Your task to perform on an android device: set the timer Image 0: 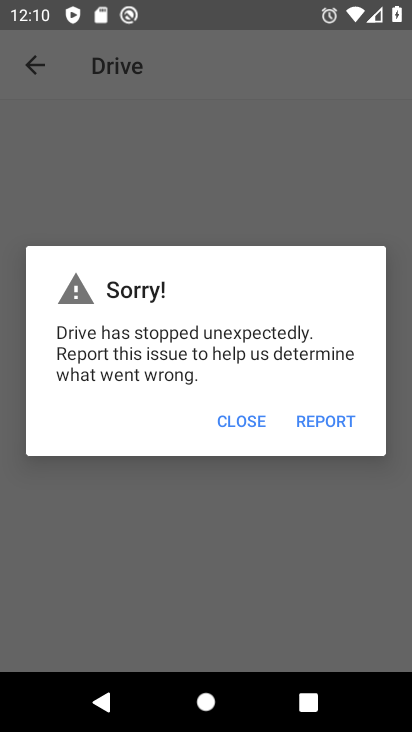
Step 0: press home button
Your task to perform on an android device: set the timer Image 1: 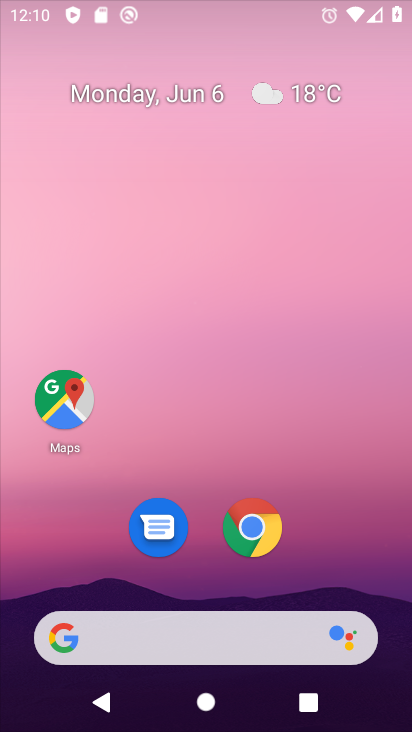
Step 1: drag from (133, 28) to (14, 387)
Your task to perform on an android device: set the timer Image 2: 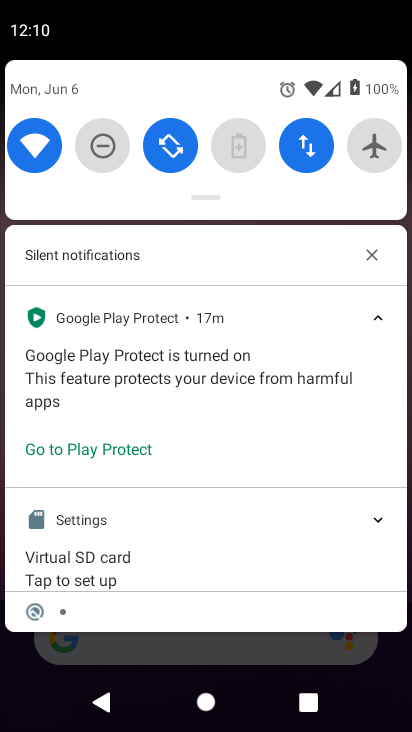
Step 2: click (195, 675)
Your task to perform on an android device: set the timer Image 3: 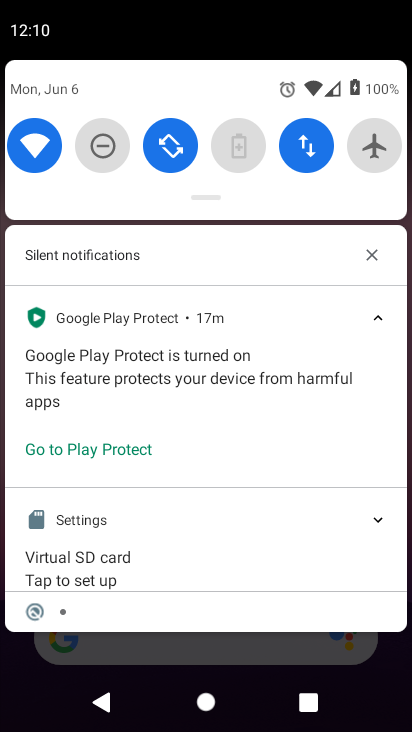
Step 3: drag from (159, 676) to (145, 206)
Your task to perform on an android device: set the timer Image 4: 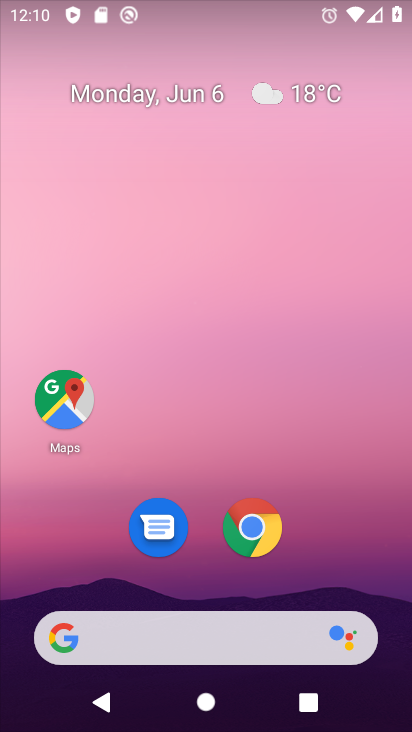
Step 4: drag from (199, 580) to (194, 11)
Your task to perform on an android device: set the timer Image 5: 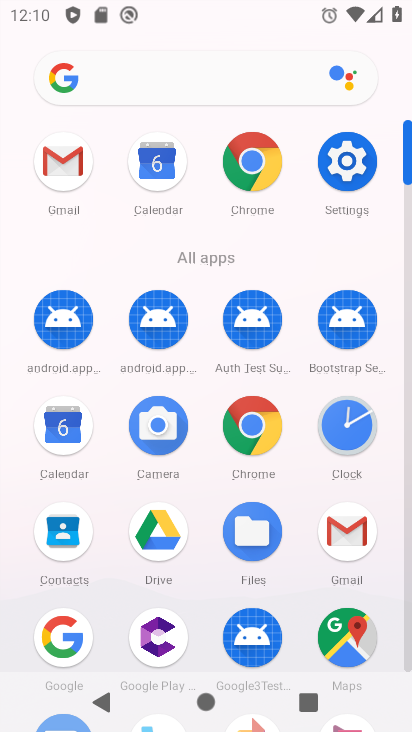
Step 5: click (336, 447)
Your task to perform on an android device: set the timer Image 6: 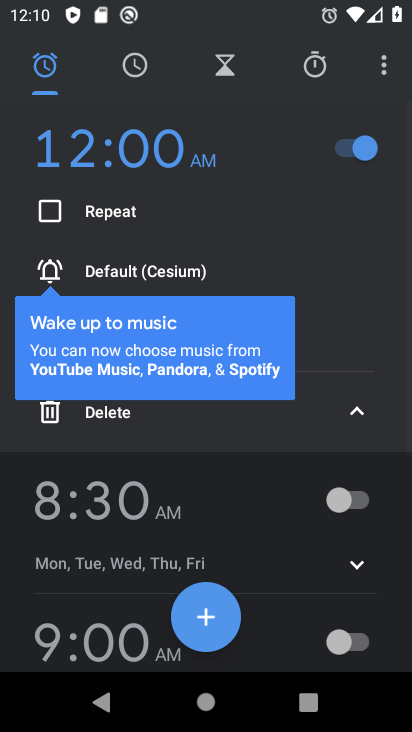
Step 6: click (307, 73)
Your task to perform on an android device: set the timer Image 7: 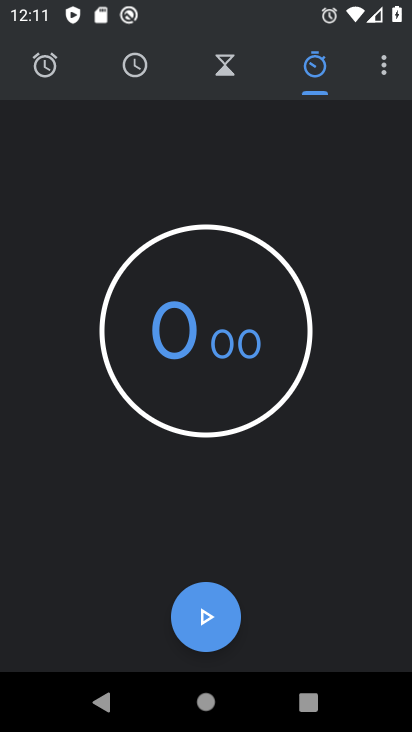
Step 7: click (225, 68)
Your task to perform on an android device: set the timer Image 8: 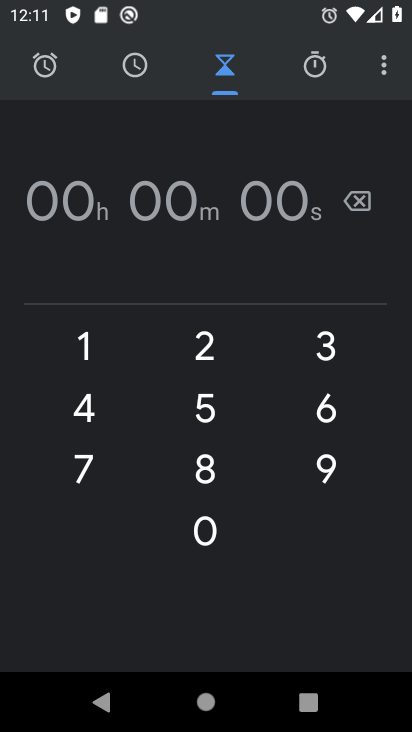
Step 8: click (207, 353)
Your task to perform on an android device: set the timer Image 9: 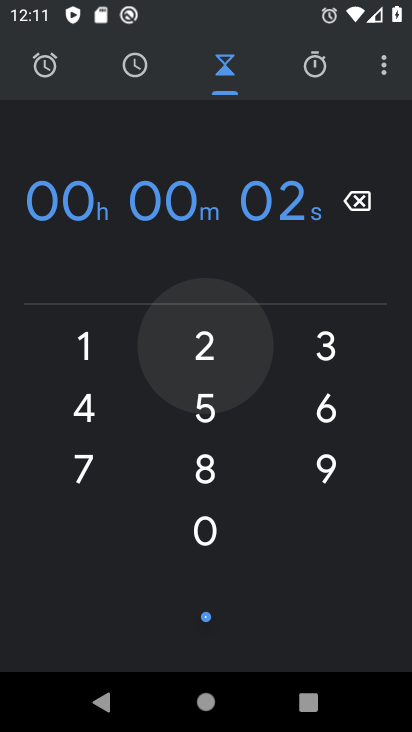
Step 9: click (200, 411)
Your task to perform on an android device: set the timer Image 10: 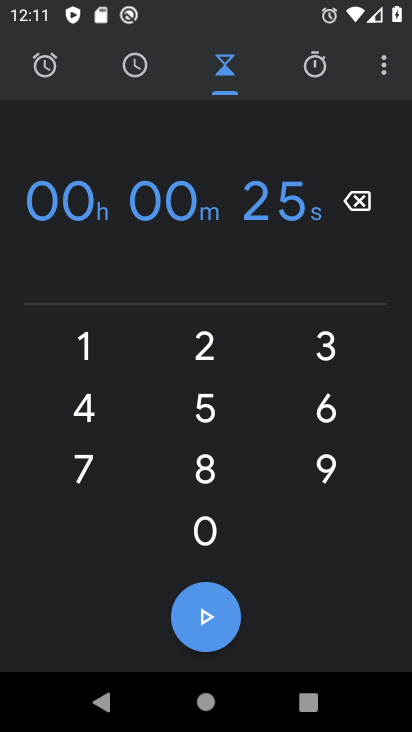
Step 10: click (208, 609)
Your task to perform on an android device: set the timer Image 11: 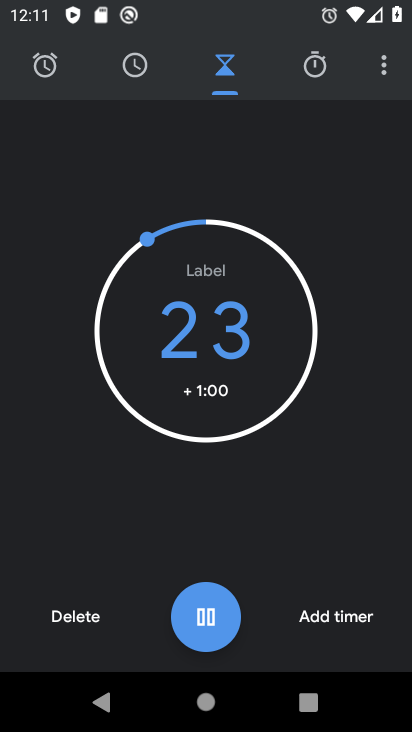
Step 11: task complete